Your task to perform on an android device: install app "Lyft - Rideshare, Bikes, Scooters & Transit" Image 0: 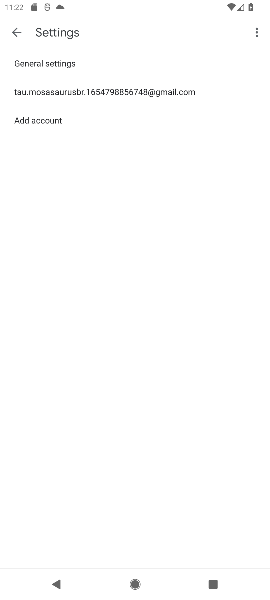
Step 0: press home button
Your task to perform on an android device: install app "Lyft - Rideshare, Bikes, Scooters & Transit" Image 1: 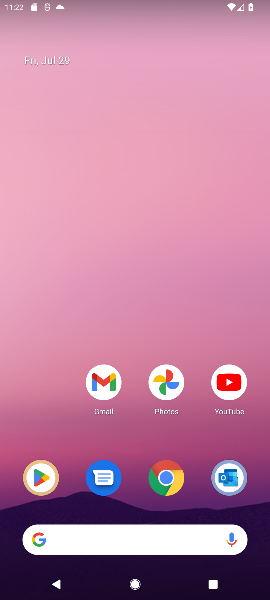
Step 1: click (42, 478)
Your task to perform on an android device: install app "Lyft - Rideshare, Bikes, Scooters & Transit" Image 2: 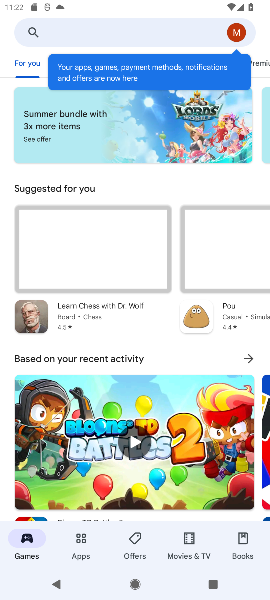
Step 2: click (140, 33)
Your task to perform on an android device: install app "Lyft - Rideshare, Bikes, Scooters & Transit" Image 3: 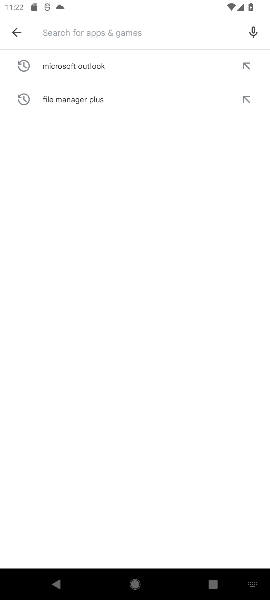
Step 3: type "Lyft - Rideshare, Bikes, Scooters & Transit""
Your task to perform on an android device: install app "Lyft - Rideshare, Bikes, Scooters & Transit" Image 4: 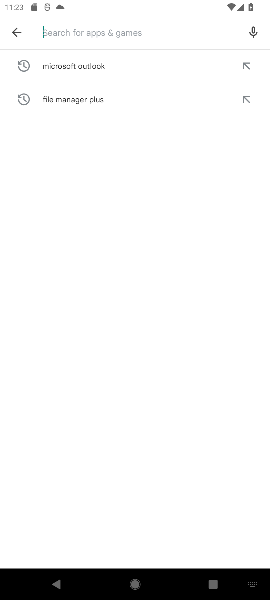
Step 4: type ""
Your task to perform on an android device: install app "Lyft - Rideshare, Bikes, Scooters & Transit" Image 5: 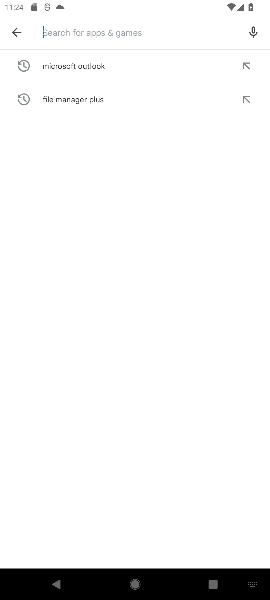
Step 5: type "Lyft - Rideshare, Bikes, Scooters & Transit"
Your task to perform on an android device: install app "Lyft - Rideshare, Bikes, Scooters & Transit" Image 6: 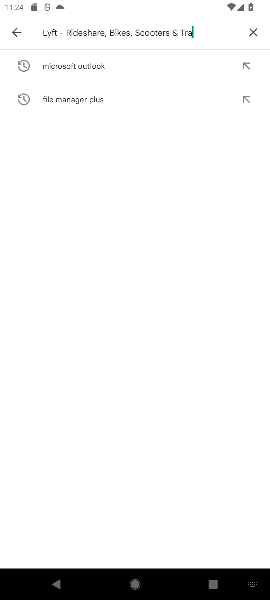
Step 6: type ""
Your task to perform on an android device: install app "Lyft - Rideshare, Bikes, Scooters & Transit" Image 7: 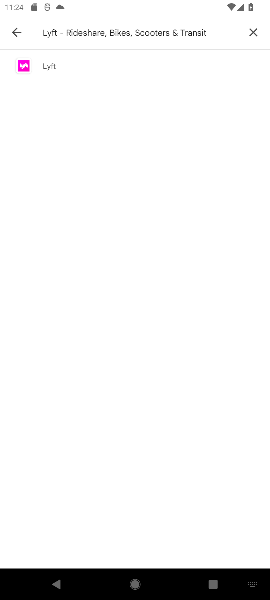
Step 7: click (37, 69)
Your task to perform on an android device: install app "Lyft - Rideshare, Bikes, Scooters & Transit" Image 8: 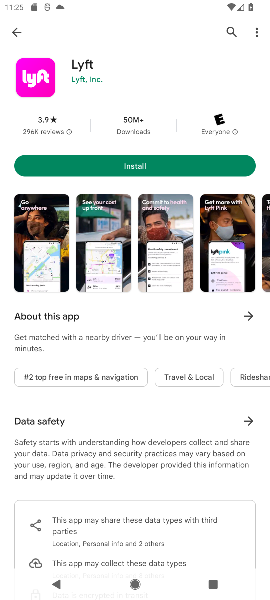
Step 8: click (134, 159)
Your task to perform on an android device: install app "Lyft - Rideshare, Bikes, Scooters & Transit" Image 9: 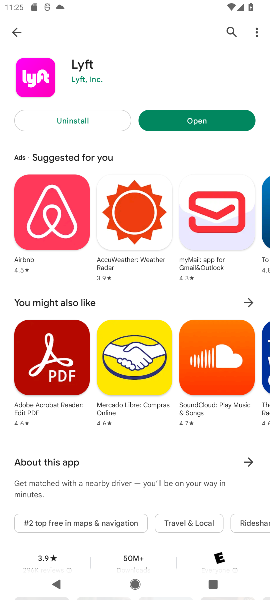
Step 9: click (193, 121)
Your task to perform on an android device: install app "Lyft - Rideshare, Bikes, Scooters & Transit" Image 10: 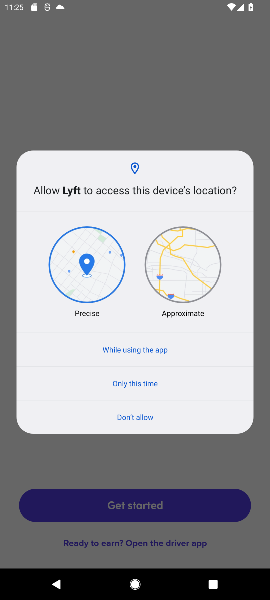
Step 10: click (130, 343)
Your task to perform on an android device: install app "Lyft - Rideshare, Bikes, Scooters & Transit" Image 11: 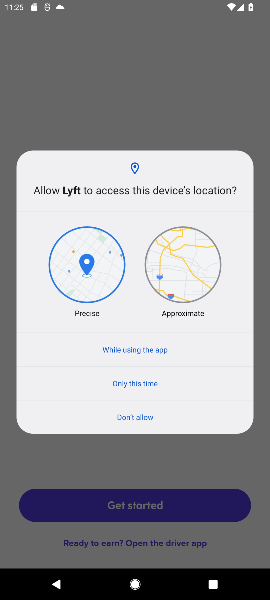
Step 11: click (130, 343)
Your task to perform on an android device: install app "Lyft - Rideshare, Bikes, Scooters & Transit" Image 12: 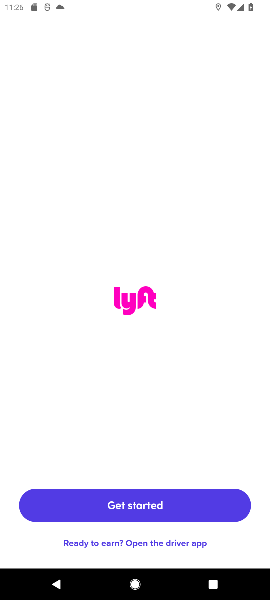
Step 12: click (189, 500)
Your task to perform on an android device: install app "Lyft - Rideshare, Bikes, Scooters & Transit" Image 13: 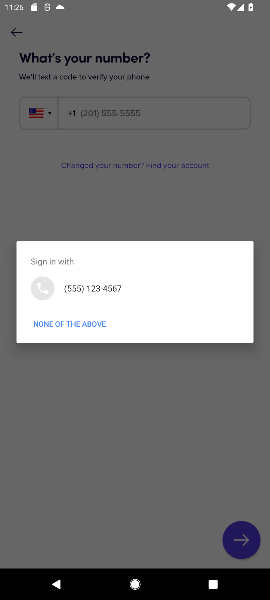
Step 13: task complete